Your task to perform on an android device: toggle location history Image 0: 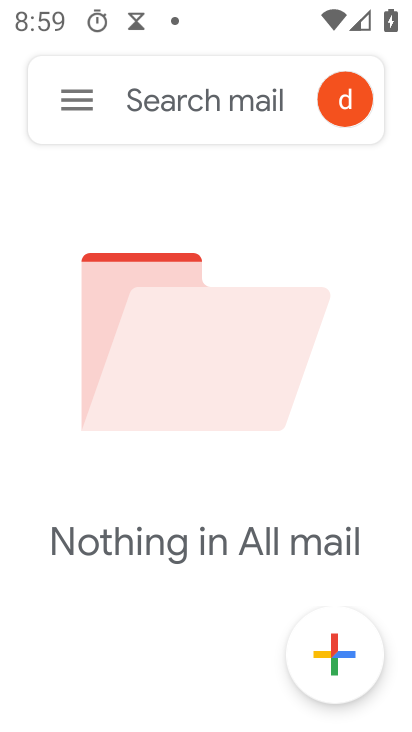
Step 0: click (75, 99)
Your task to perform on an android device: toggle location history Image 1: 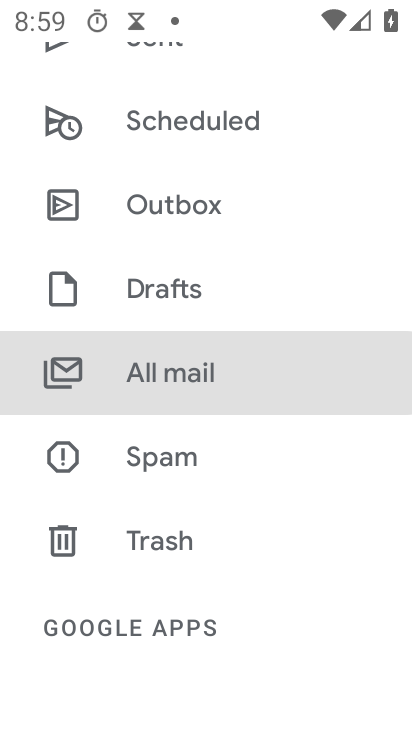
Step 1: press home button
Your task to perform on an android device: toggle location history Image 2: 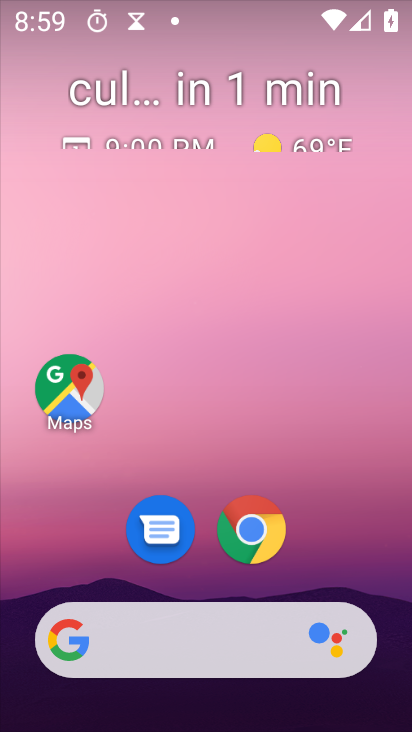
Step 2: drag from (361, 528) to (393, 59)
Your task to perform on an android device: toggle location history Image 3: 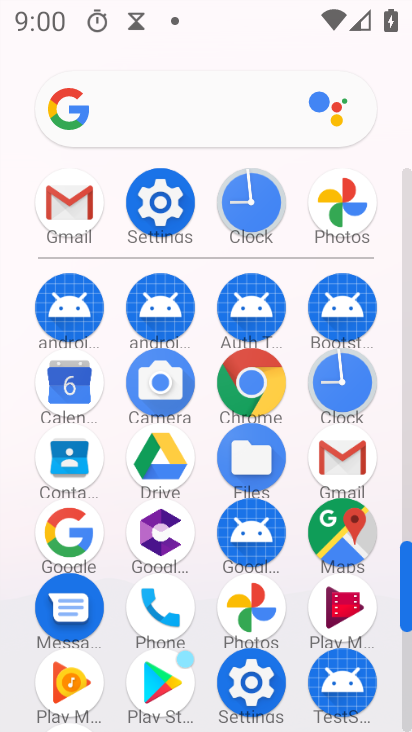
Step 3: click (167, 196)
Your task to perform on an android device: toggle location history Image 4: 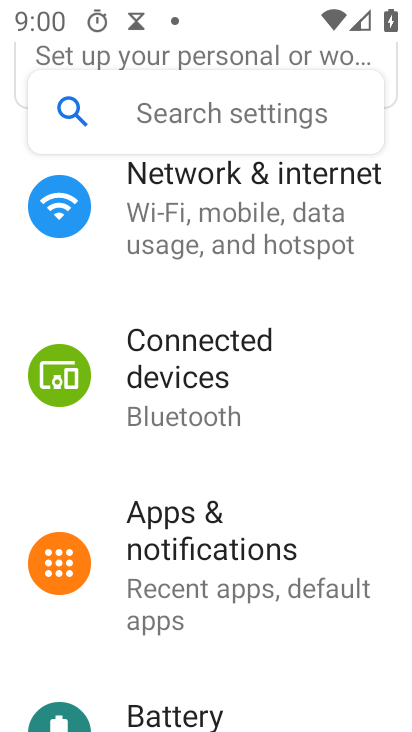
Step 4: drag from (310, 661) to (316, 178)
Your task to perform on an android device: toggle location history Image 5: 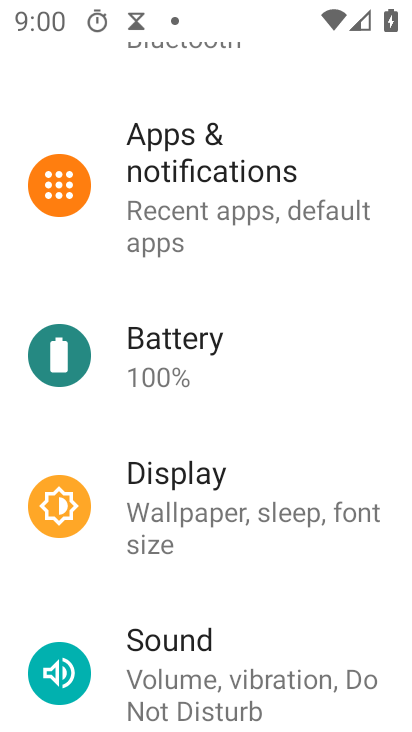
Step 5: drag from (254, 562) to (258, 153)
Your task to perform on an android device: toggle location history Image 6: 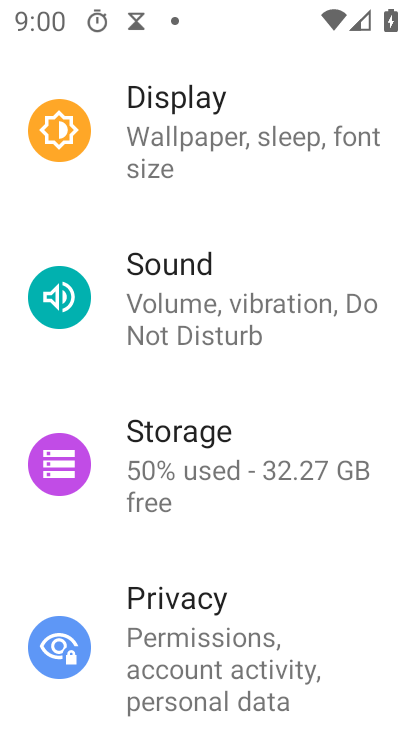
Step 6: drag from (242, 613) to (242, 160)
Your task to perform on an android device: toggle location history Image 7: 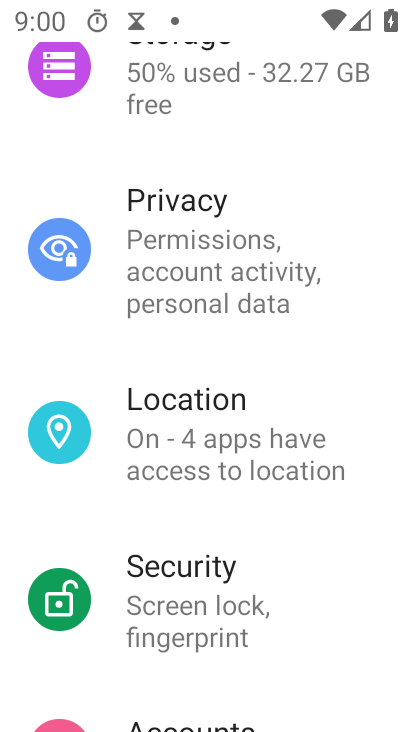
Step 7: click (204, 459)
Your task to perform on an android device: toggle location history Image 8: 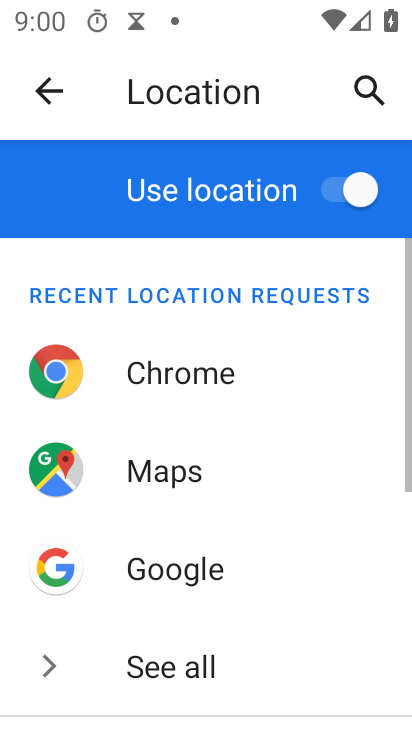
Step 8: drag from (261, 625) to (250, 68)
Your task to perform on an android device: toggle location history Image 9: 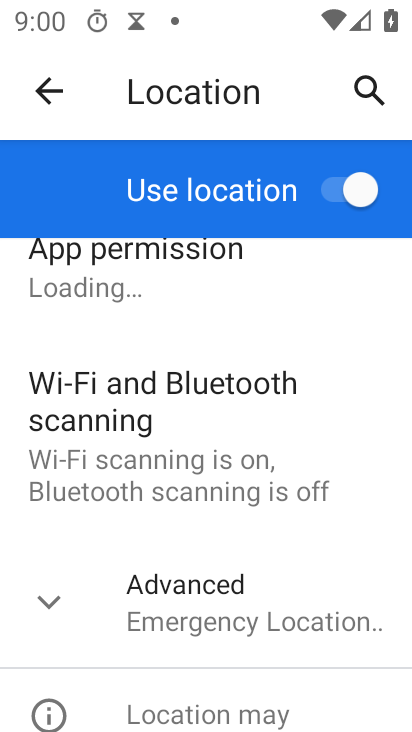
Step 9: click (232, 635)
Your task to perform on an android device: toggle location history Image 10: 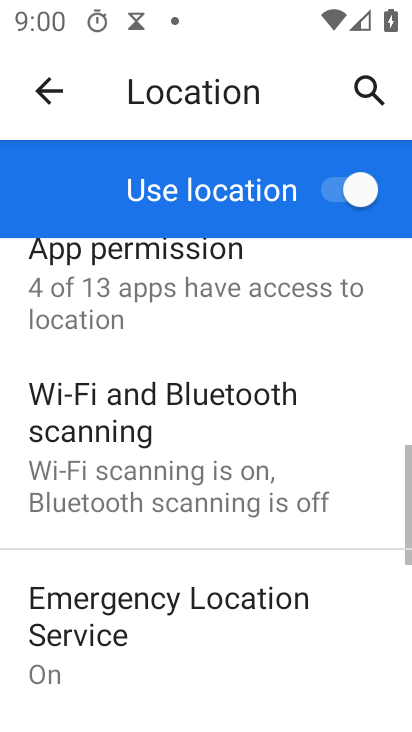
Step 10: drag from (232, 635) to (230, 131)
Your task to perform on an android device: toggle location history Image 11: 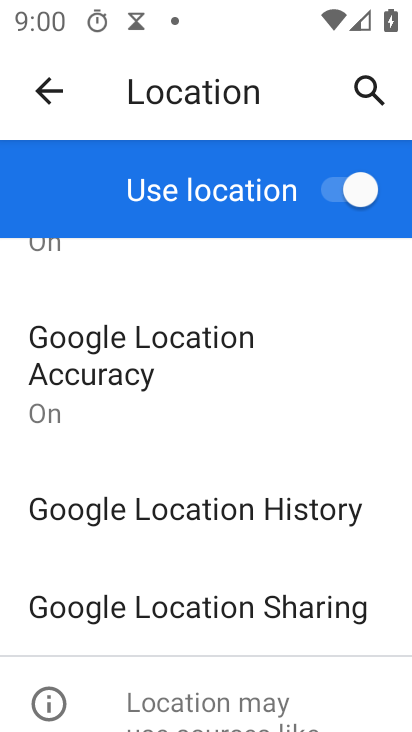
Step 11: click (235, 511)
Your task to perform on an android device: toggle location history Image 12: 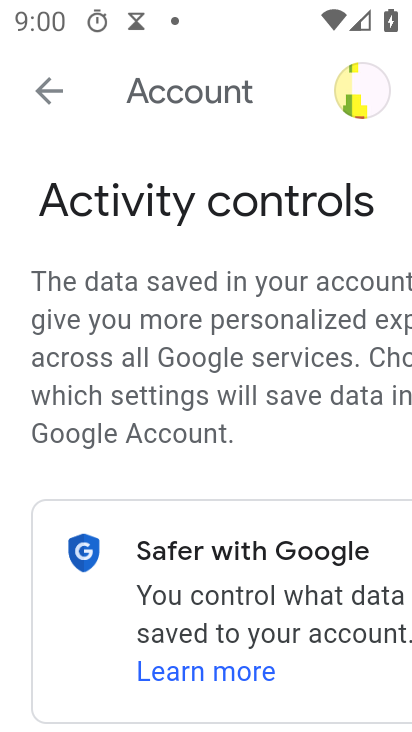
Step 12: drag from (315, 633) to (264, 142)
Your task to perform on an android device: toggle location history Image 13: 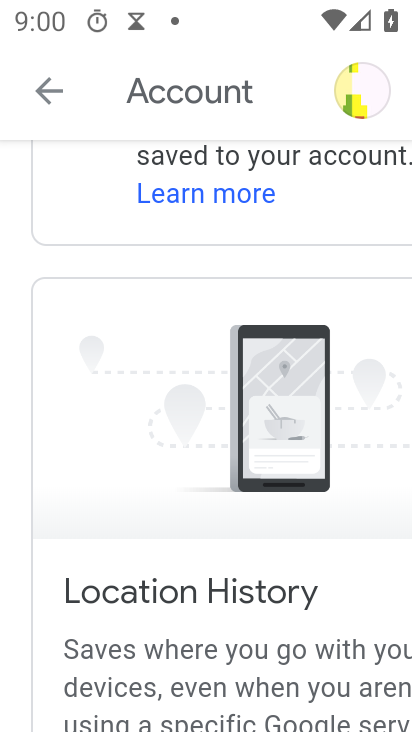
Step 13: drag from (284, 568) to (292, 210)
Your task to perform on an android device: toggle location history Image 14: 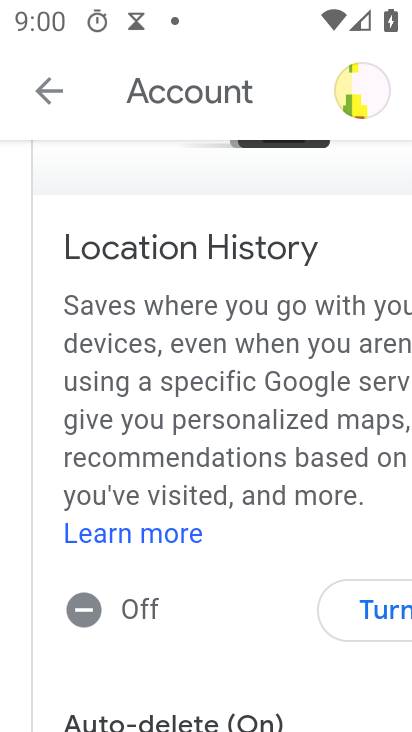
Step 14: click (364, 605)
Your task to perform on an android device: toggle location history Image 15: 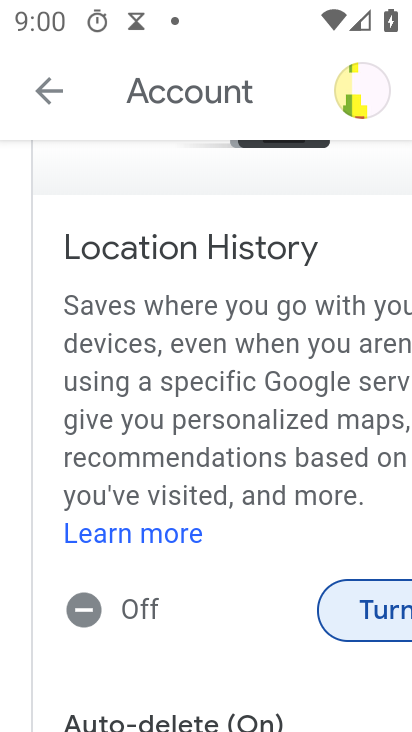
Step 15: click (102, 605)
Your task to perform on an android device: toggle location history Image 16: 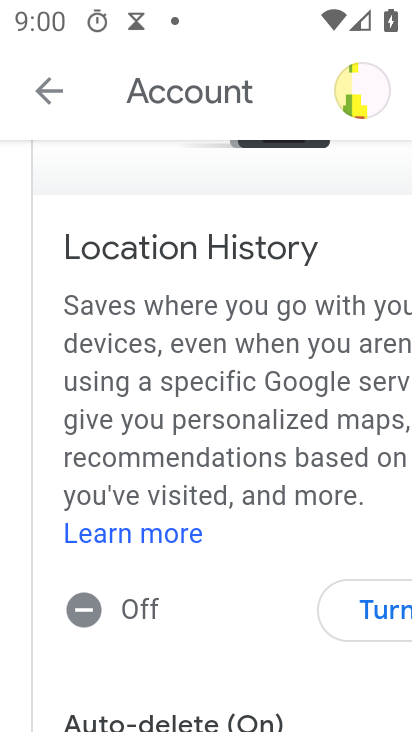
Step 16: drag from (276, 642) to (284, 218)
Your task to perform on an android device: toggle location history Image 17: 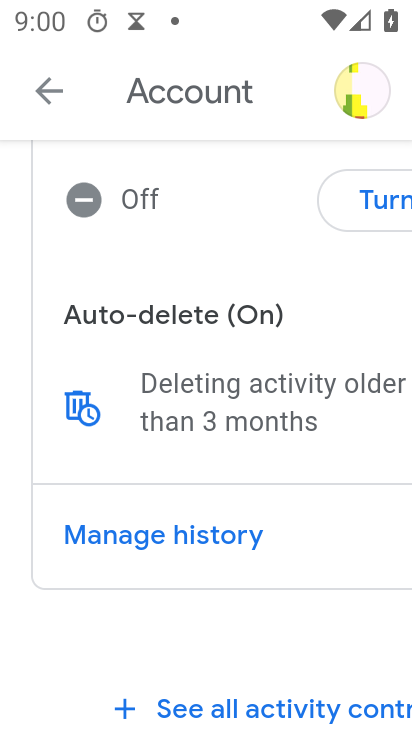
Step 17: click (385, 192)
Your task to perform on an android device: toggle location history Image 18: 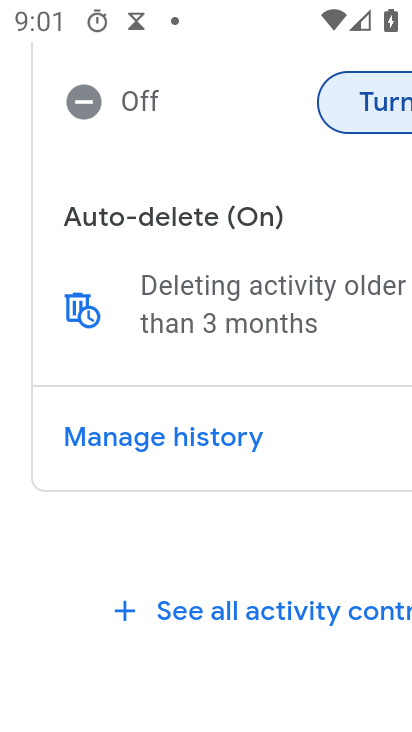
Step 18: click (385, 192)
Your task to perform on an android device: toggle location history Image 19: 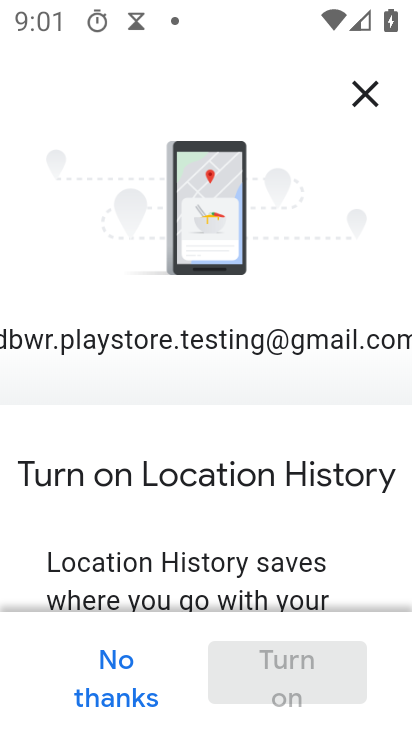
Step 19: task complete